Your task to perform on an android device: Clear the shopping cart on amazon.com. Search for razer blade on amazon.com, select the first entry, add it to the cart, then select checkout. Image 0: 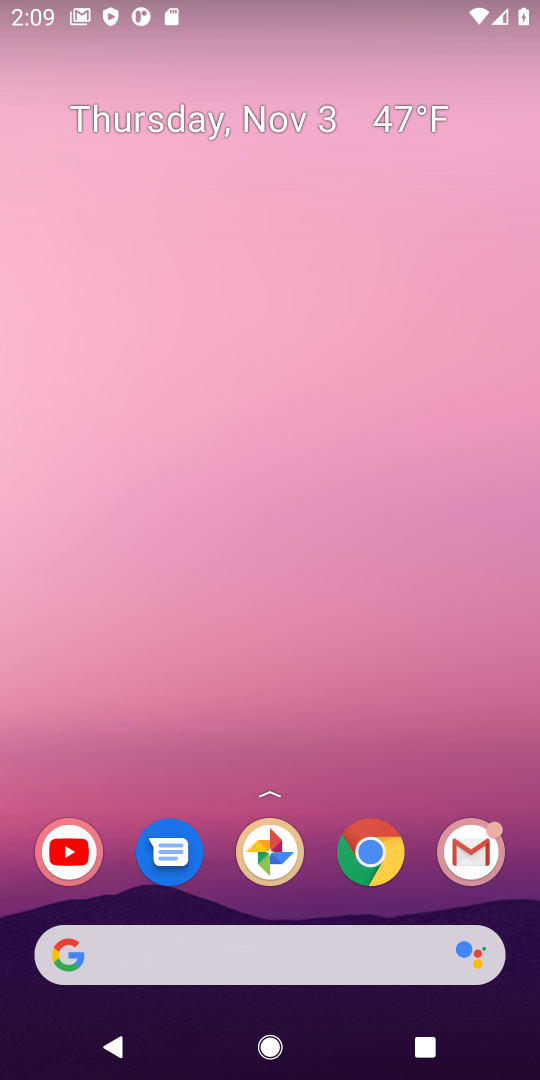
Step 0: click (378, 865)
Your task to perform on an android device: Clear the shopping cart on amazon.com. Search for razer blade on amazon.com, select the first entry, add it to the cart, then select checkout. Image 1: 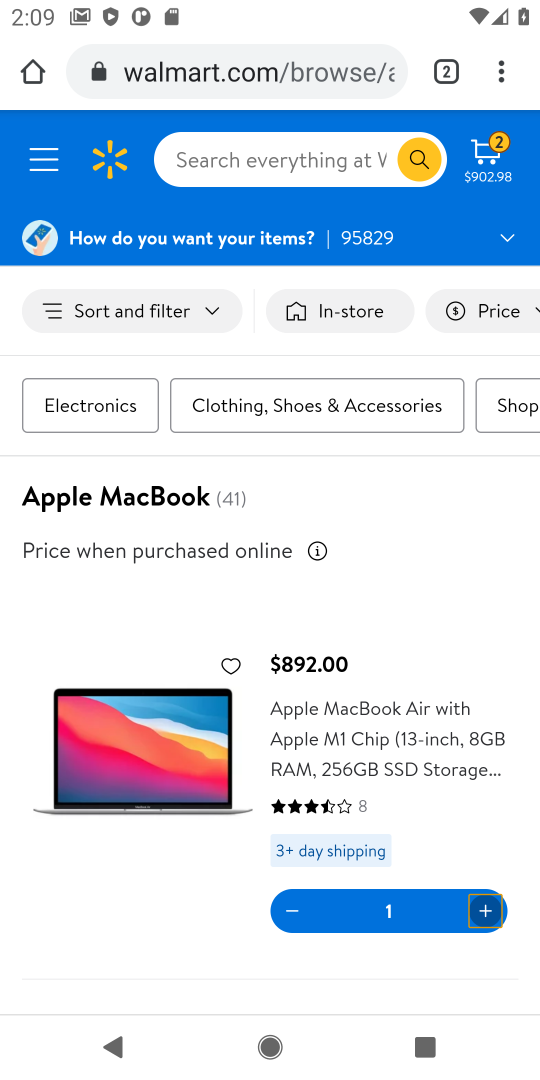
Step 1: click (251, 67)
Your task to perform on an android device: Clear the shopping cart on amazon.com. Search for razer blade on amazon.com, select the first entry, add it to the cart, then select checkout. Image 2: 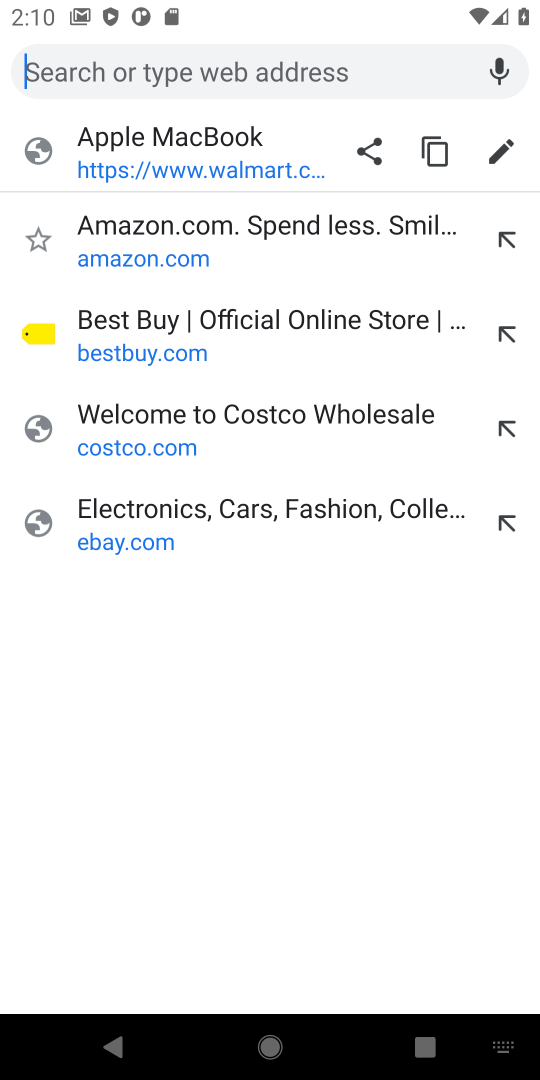
Step 2: click (140, 259)
Your task to perform on an android device: Clear the shopping cart on amazon.com. Search for razer blade on amazon.com, select the first entry, add it to the cart, then select checkout. Image 3: 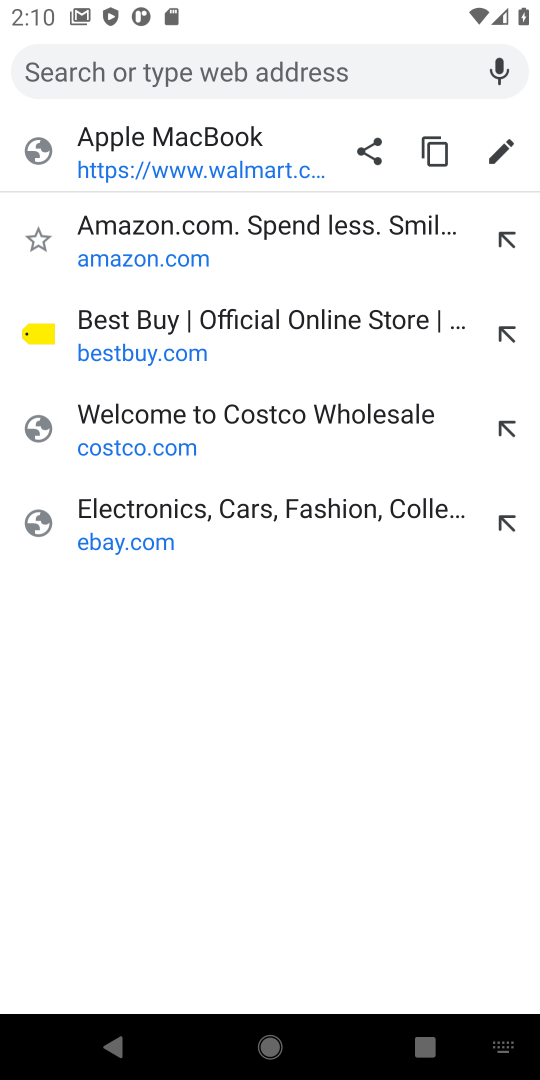
Step 3: click (139, 252)
Your task to perform on an android device: Clear the shopping cart on amazon.com. Search for razer blade on amazon.com, select the first entry, add it to the cart, then select checkout. Image 4: 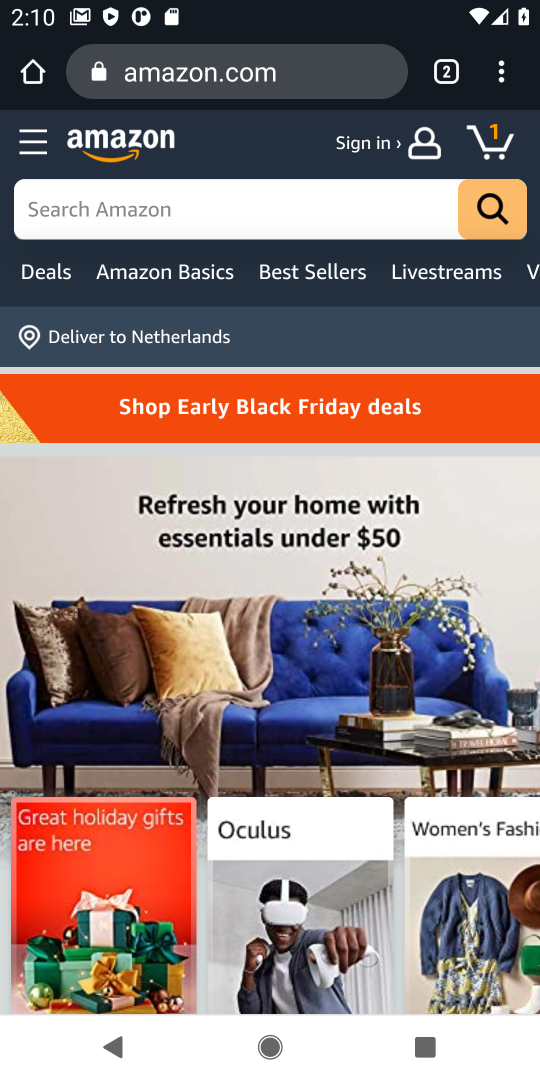
Step 4: click (493, 135)
Your task to perform on an android device: Clear the shopping cart on amazon.com. Search for razer blade on amazon.com, select the first entry, add it to the cart, then select checkout. Image 5: 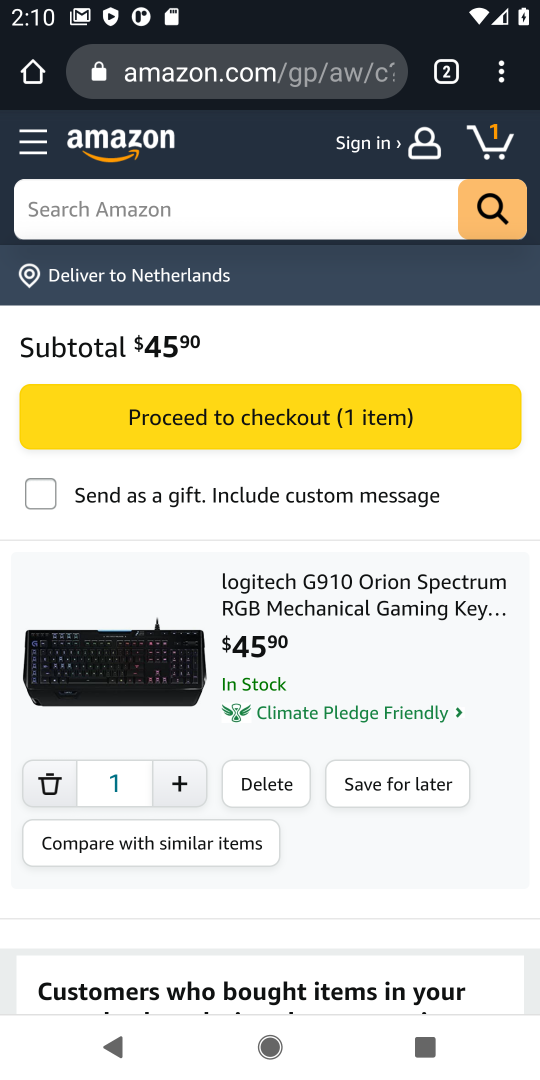
Step 5: click (276, 790)
Your task to perform on an android device: Clear the shopping cart on amazon.com. Search for razer blade on amazon.com, select the first entry, add it to the cart, then select checkout. Image 6: 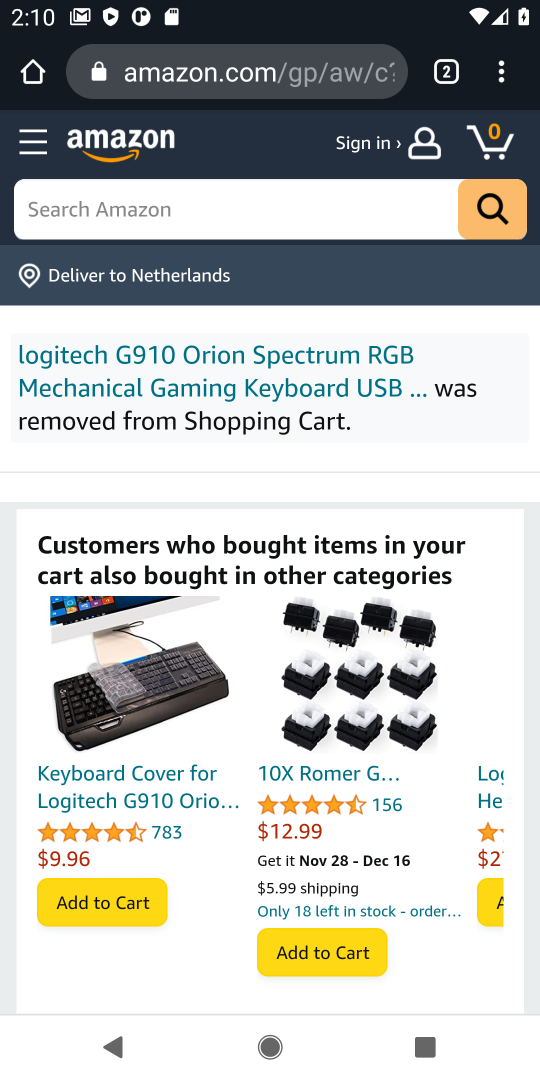
Step 6: click (176, 212)
Your task to perform on an android device: Clear the shopping cart on amazon.com. Search for razer blade on amazon.com, select the first entry, add it to the cart, then select checkout. Image 7: 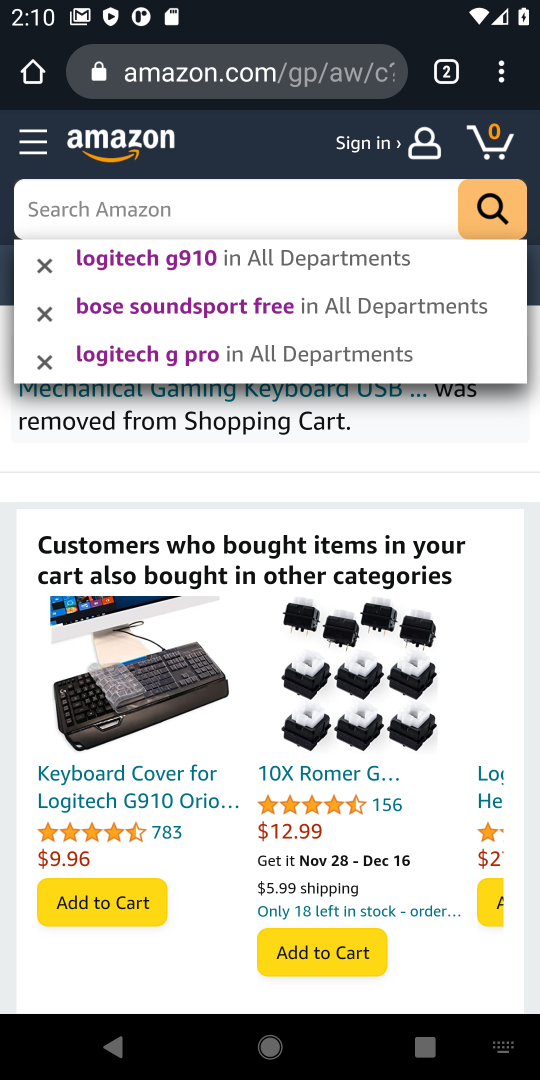
Step 7: type "razer blade"
Your task to perform on an android device: Clear the shopping cart on amazon.com. Search for razer blade on amazon.com, select the first entry, add it to the cart, then select checkout. Image 8: 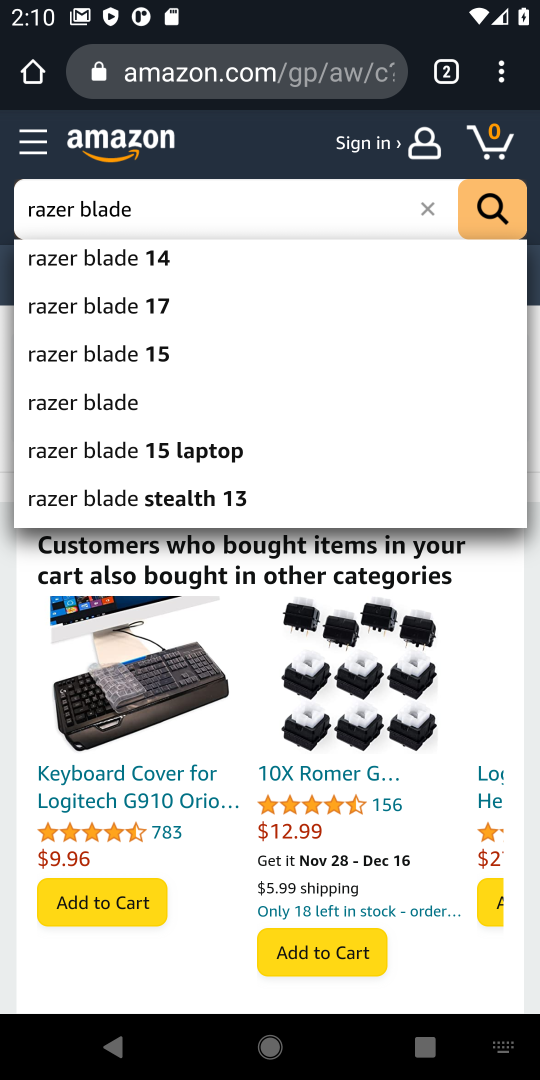
Step 8: click (88, 414)
Your task to perform on an android device: Clear the shopping cart on amazon.com. Search for razer blade on amazon.com, select the first entry, add it to the cart, then select checkout. Image 9: 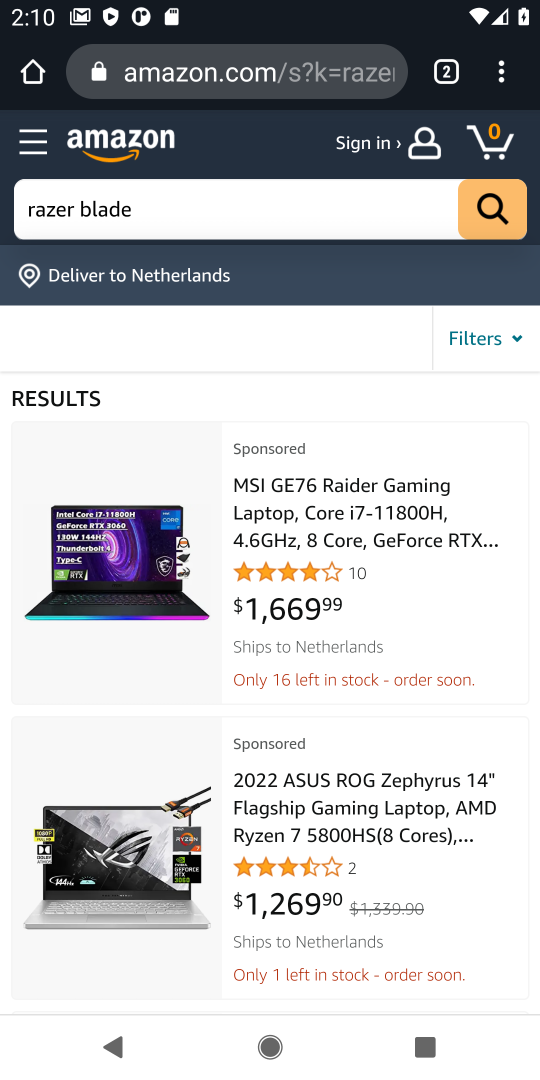
Step 9: task complete